Your task to perform on an android device: Search for beats solo 3 on newegg.com, select the first entry, and add it to the cart. Image 0: 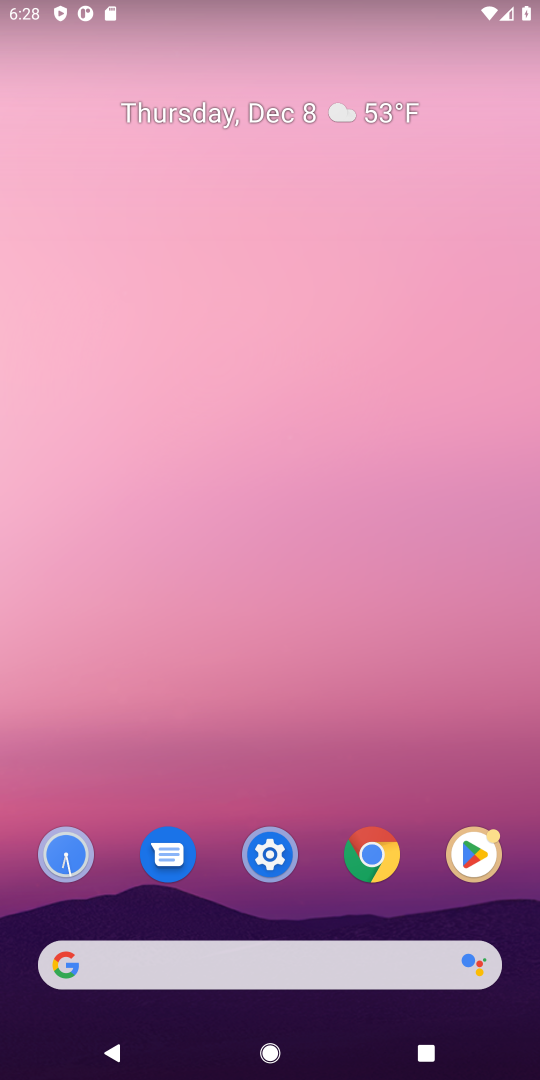
Step 0: press home button
Your task to perform on an android device: Search for beats solo 3 on newegg.com, select the first entry, and add it to the cart. Image 1: 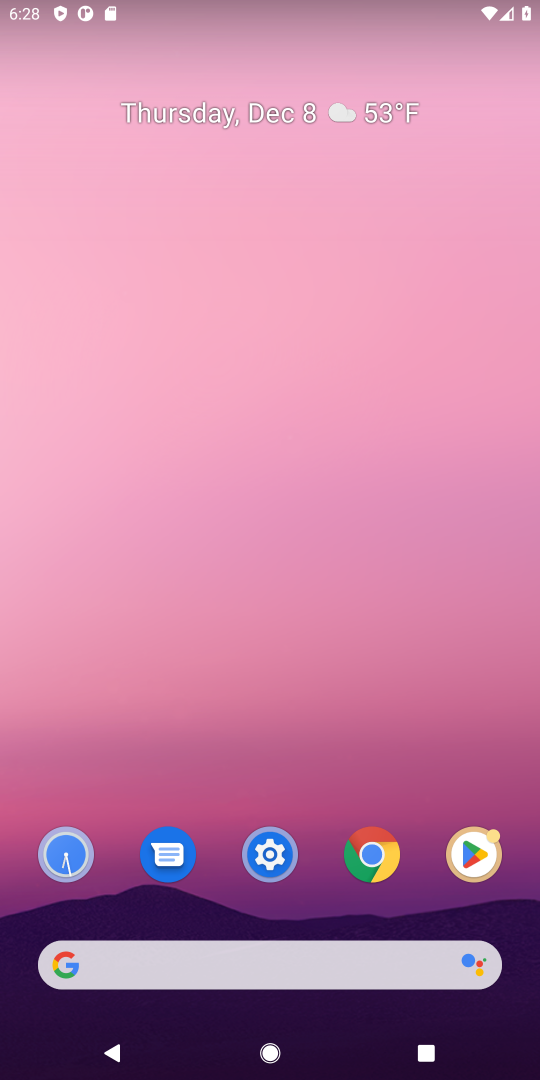
Step 1: click (110, 956)
Your task to perform on an android device: Search for beats solo 3 on newegg.com, select the first entry, and add it to the cart. Image 2: 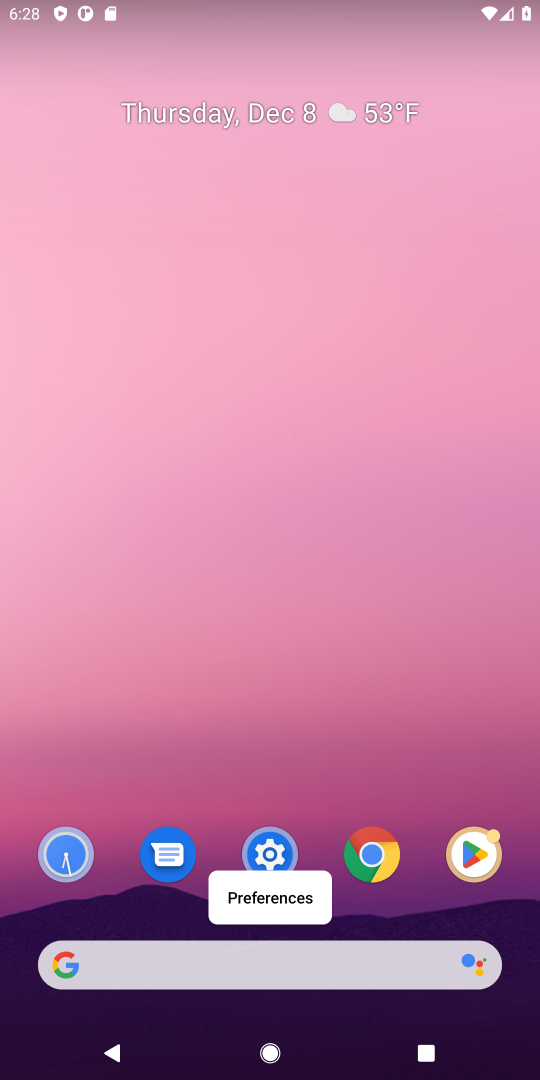
Step 2: click (99, 954)
Your task to perform on an android device: Search for beats solo 3 on newegg.com, select the first entry, and add it to the cart. Image 3: 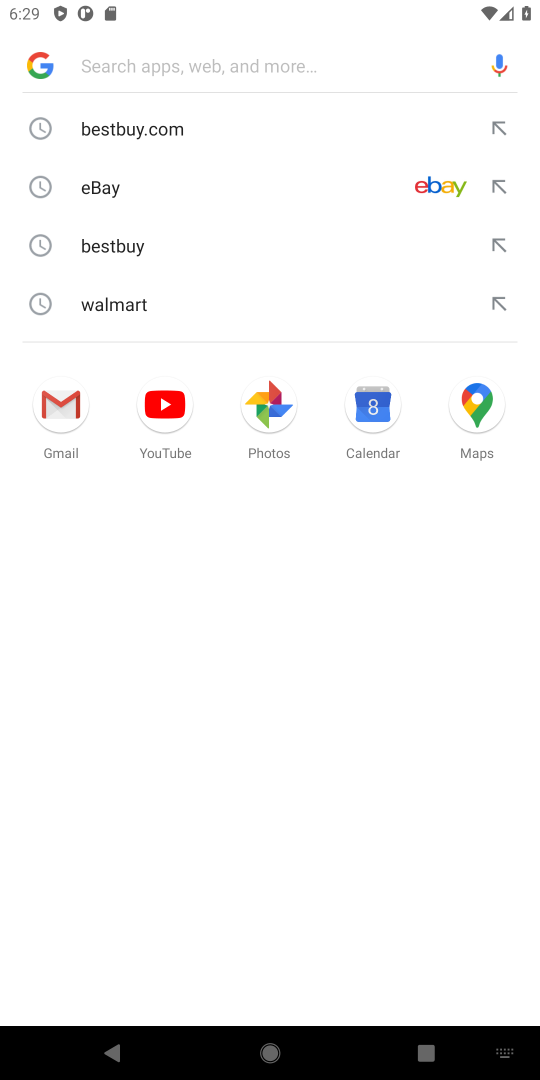
Step 3: type " newegg.com"
Your task to perform on an android device: Search for beats solo 3 on newegg.com, select the first entry, and add it to the cart. Image 4: 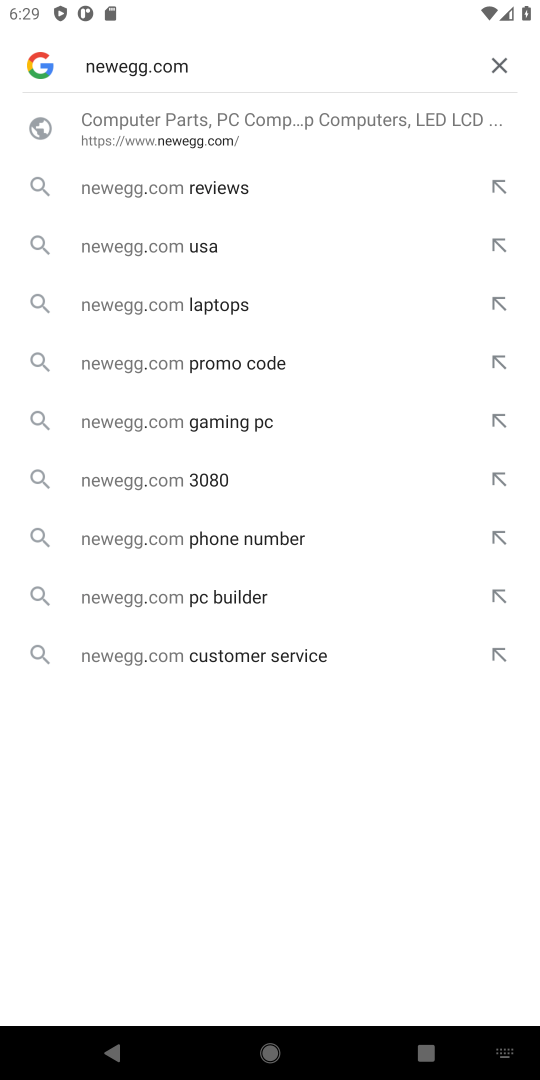
Step 4: press enter
Your task to perform on an android device: Search for beats solo 3 on newegg.com, select the first entry, and add it to the cart. Image 5: 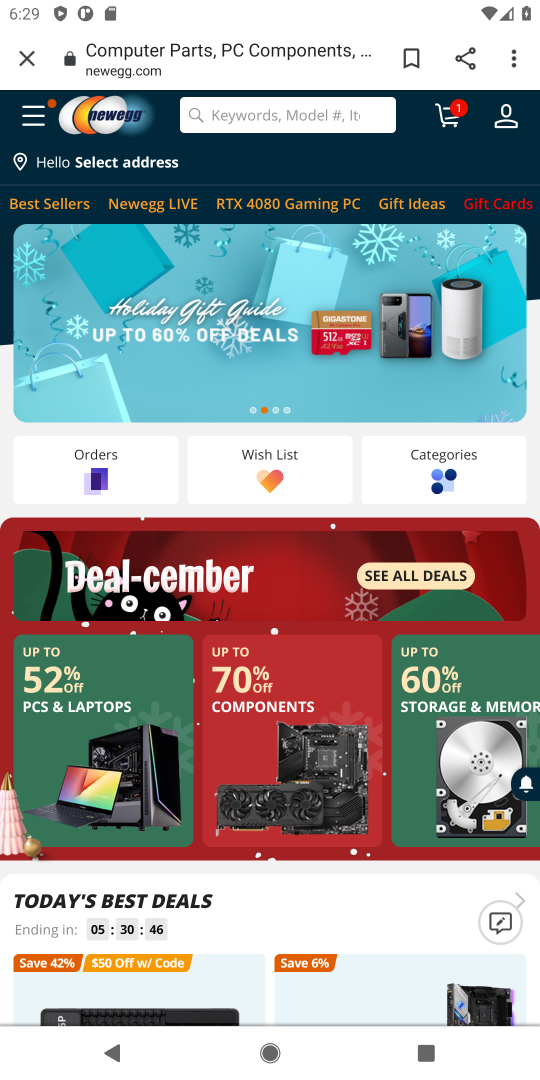
Step 5: click (238, 102)
Your task to perform on an android device: Search for beats solo 3 on newegg.com, select the first entry, and add it to the cart. Image 6: 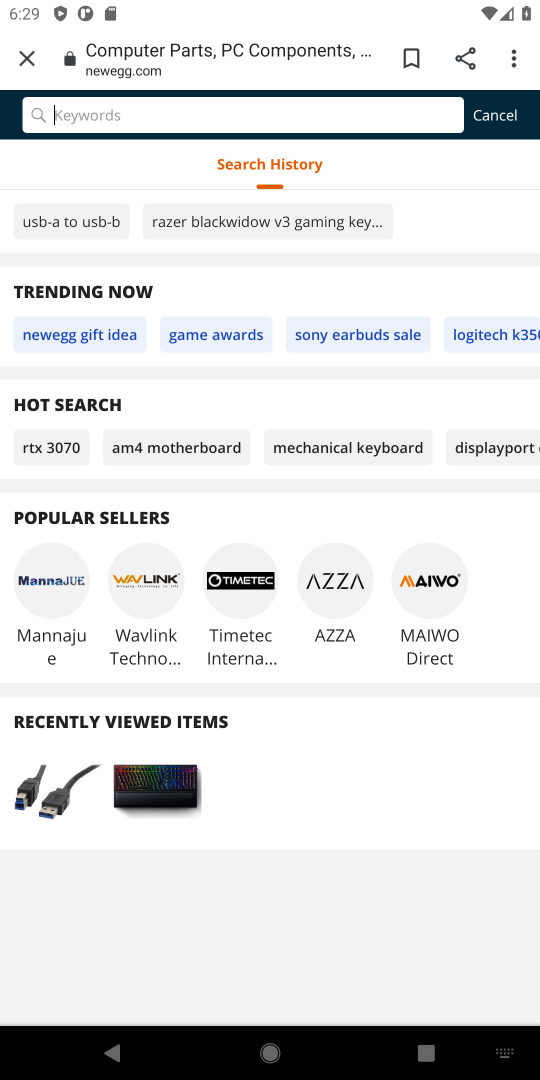
Step 6: type "beats solo 3"
Your task to perform on an android device: Search for beats solo 3 on newegg.com, select the first entry, and add it to the cart. Image 7: 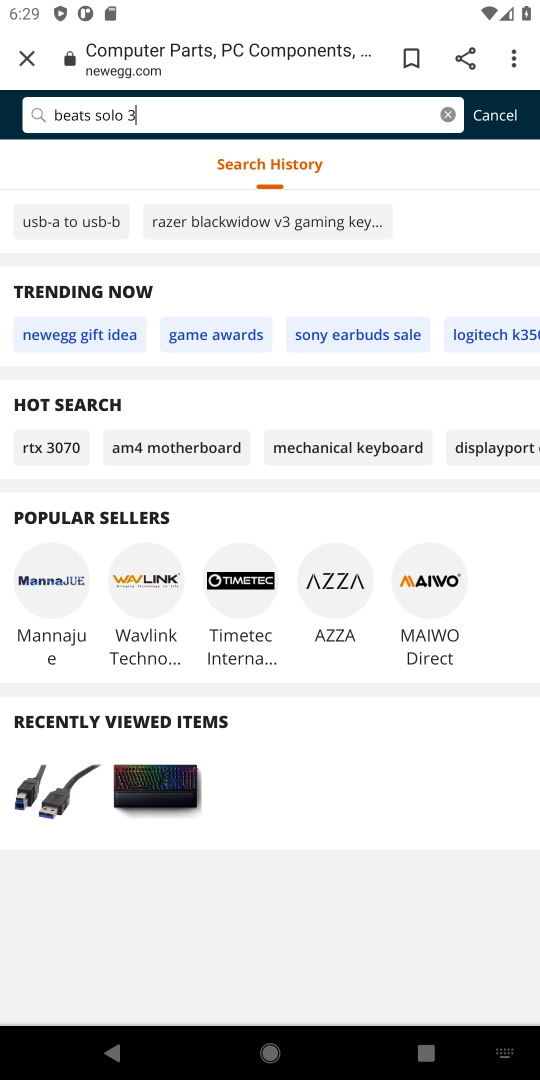
Step 7: press enter
Your task to perform on an android device: Search for beats solo 3 on newegg.com, select the first entry, and add it to the cart. Image 8: 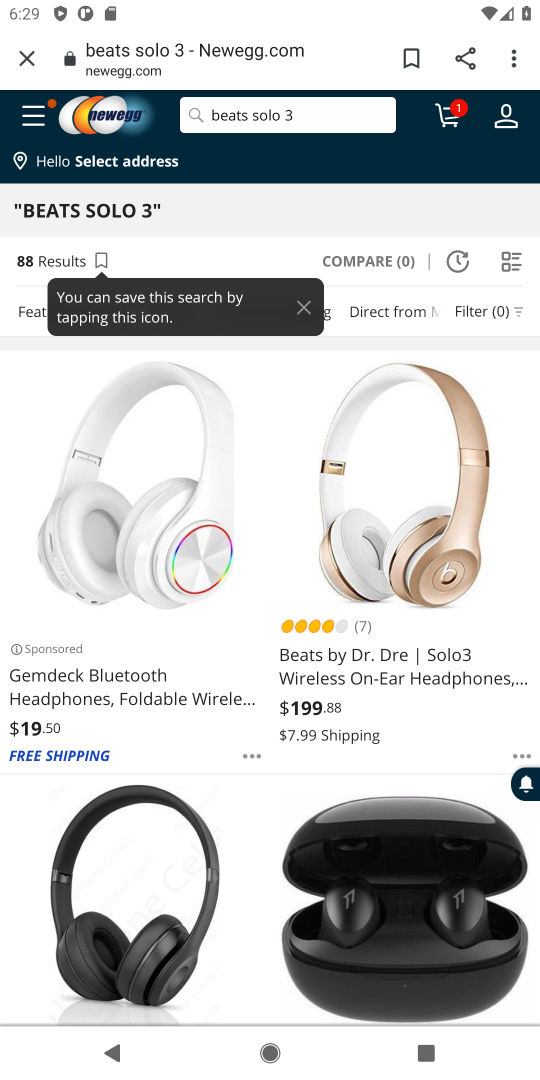
Step 8: drag from (385, 909) to (404, 501)
Your task to perform on an android device: Search for beats solo 3 on newegg.com, select the first entry, and add it to the cart. Image 9: 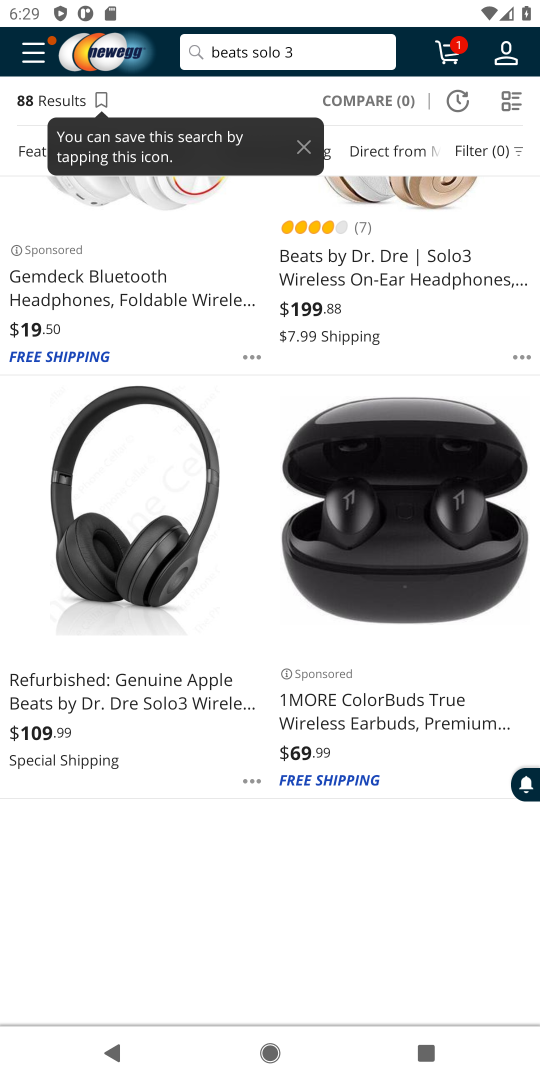
Step 9: drag from (357, 905) to (427, 413)
Your task to perform on an android device: Search for beats solo 3 on newegg.com, select the first entry, and add it to the cart. Image 10: 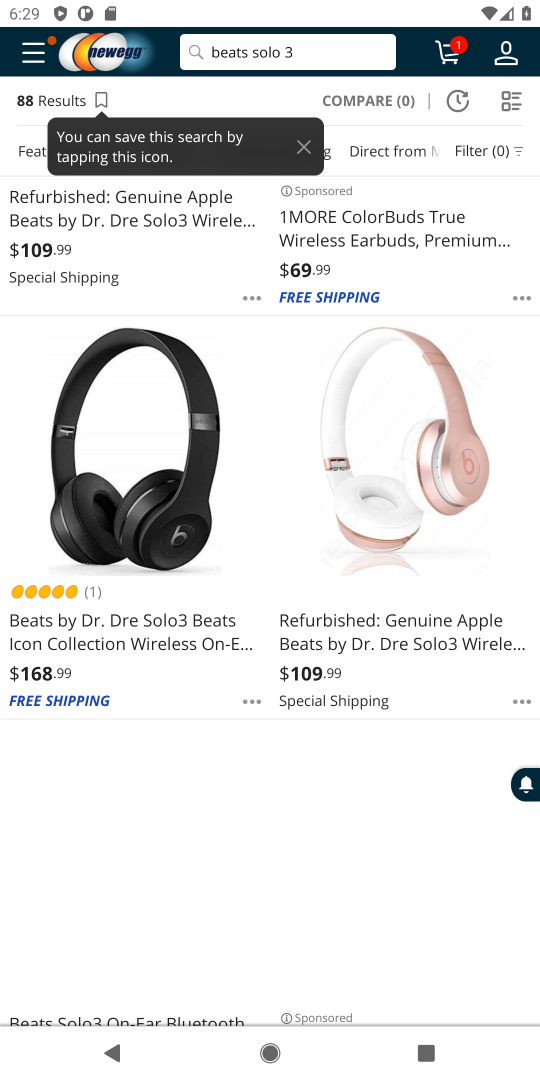
Step 10: drag from (368, 862) to (443, 254)
Your task to perform on an android device: Search for beats solo 3 on newegg.com, select the first entry, and add it to the cart. Image 11: 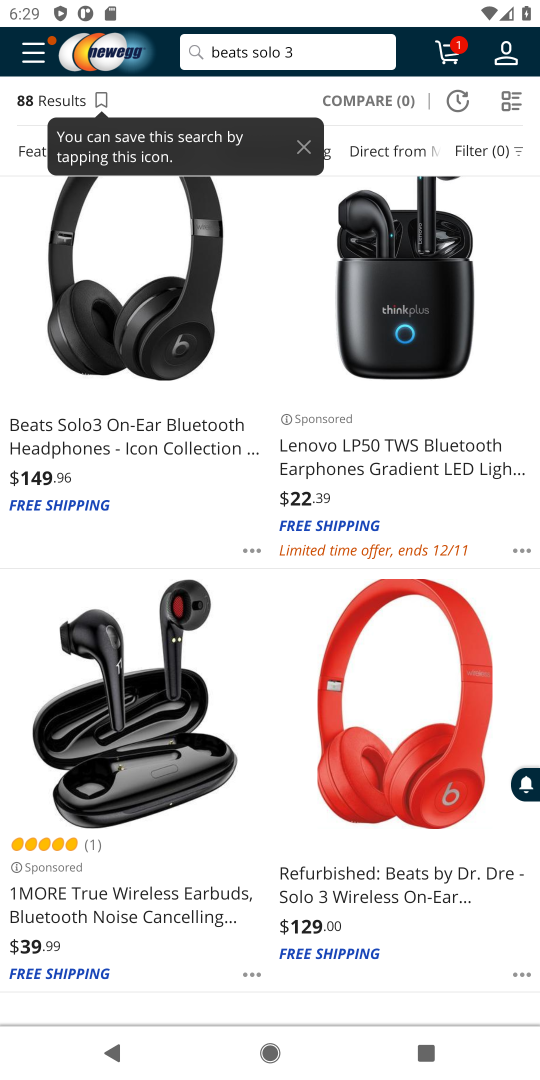
Step 11: click (119, 441)
Your task to perform on an android device: Search for beats solo 3 on newegg.com, select the first entry, and add it to the cart. Image 12: 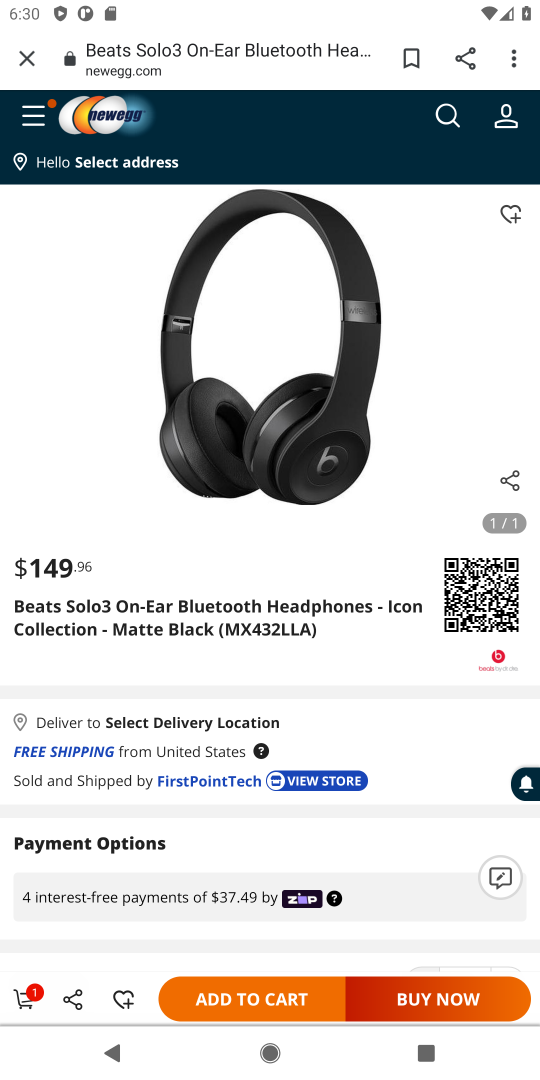
Step 12: click (212, 1007)
Your task to perform on an android device: Search for beats solo 3 on newegg.com, select the first entry, and add it to the cart. Image 13: 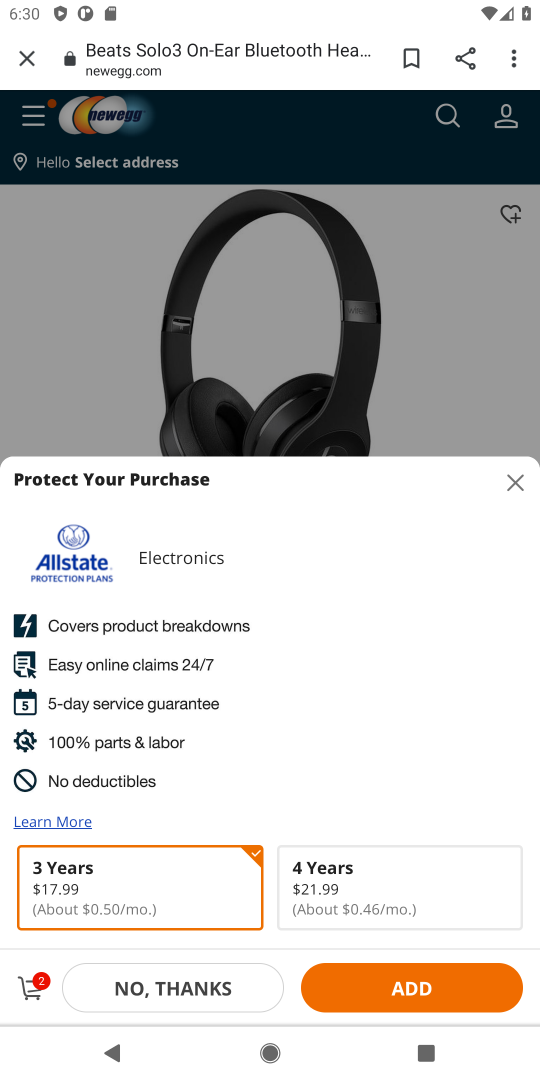
Step 13: task complete